Your task to perform on an android device: turn on improve location accuracy Image 0: 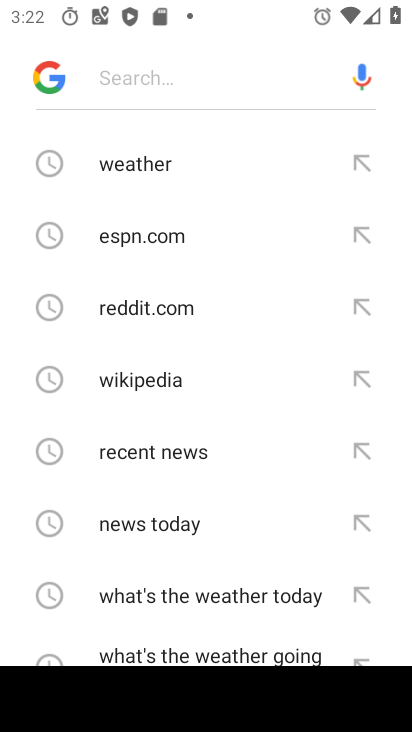
Step 0: press home button
Your task to perform on an android device: turn on improve location accuracy Image 1: 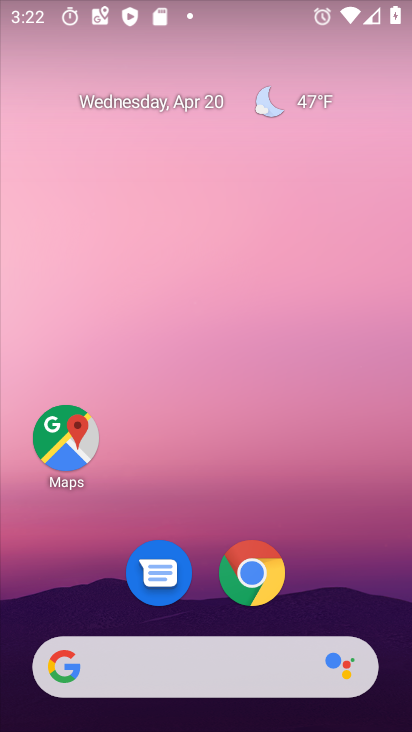
Step 1: drag from (202, 724) to (187, 47)
Your task to perform on an android device: turn on improve location accuracy Image 2: 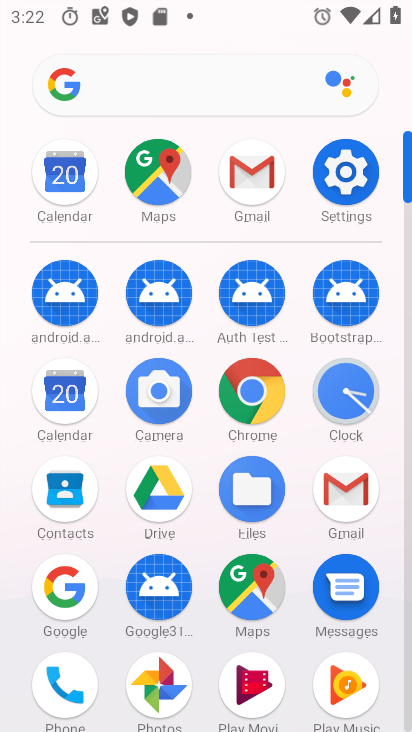
Step 2: click (350, 170)
Your task to perform on an android device: turn on improve location accuracy Image 3: 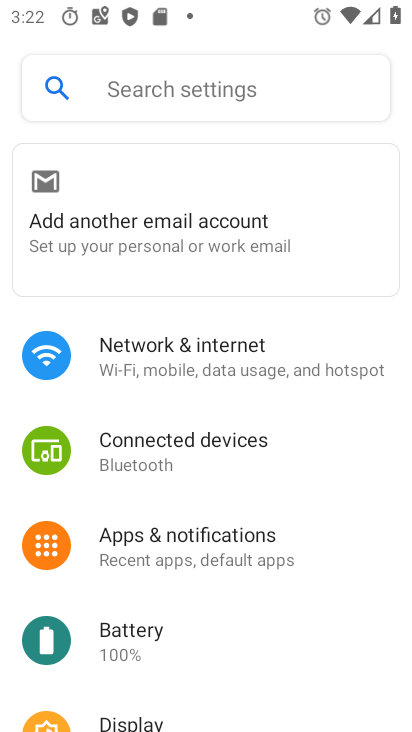
Step 3: drag from (214, 647) to (219, 162)
Your task to perform on an android device: turn on improve location accuracy Image 4: 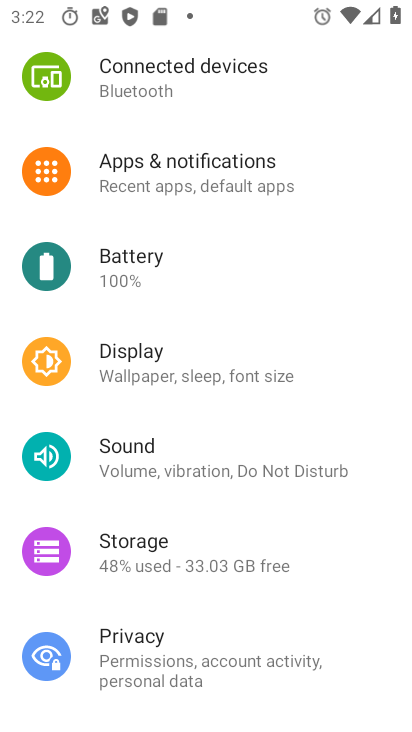
Step 4: drag from (217, 627) to (207, 214)
Your task to perform on an android device: turn on improve location accuracy Image 5: 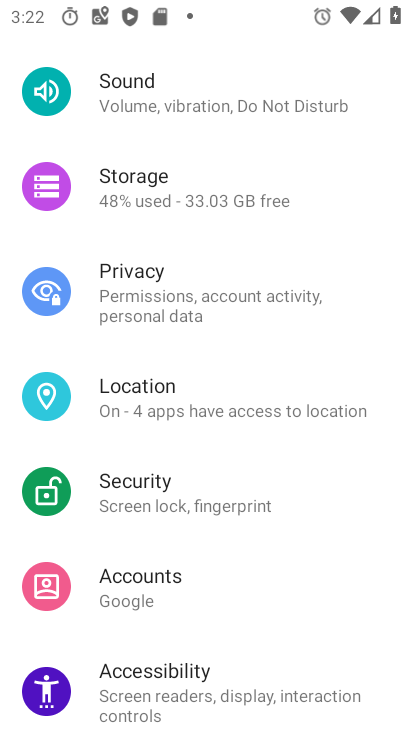
Step 5: click (126, 397)
Your task to perform on an android device: turn on improve location accuracy Image 6: 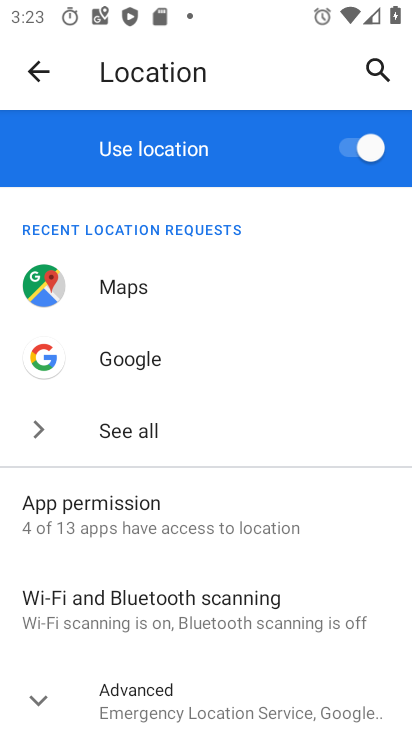
Step 6: drag from (212, 667) to (235, 439)
Your task to perform on an android device: turn on improve location accuracy Image 7: 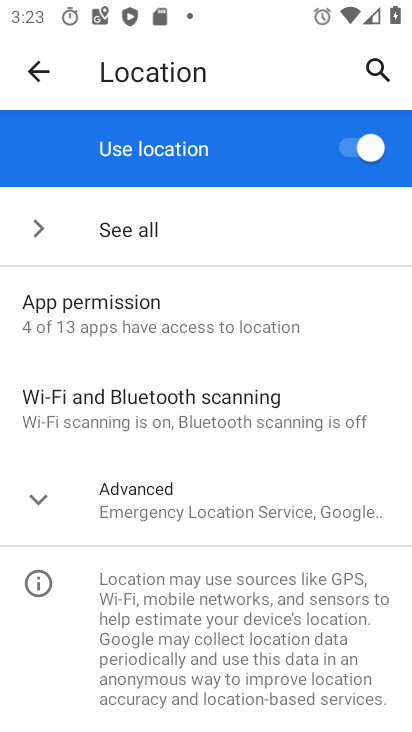
Step 7: click (149, 507)
Your task to perform on an android device: turn on improve location accuracy Image 8: 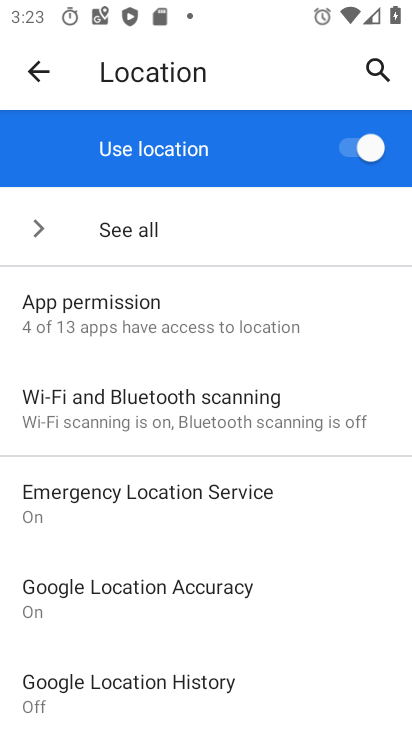
Step 8: drag from (156, 648) to (188, 383)
Your task to perform on an android device: turn on improve location accuracy Image 9: 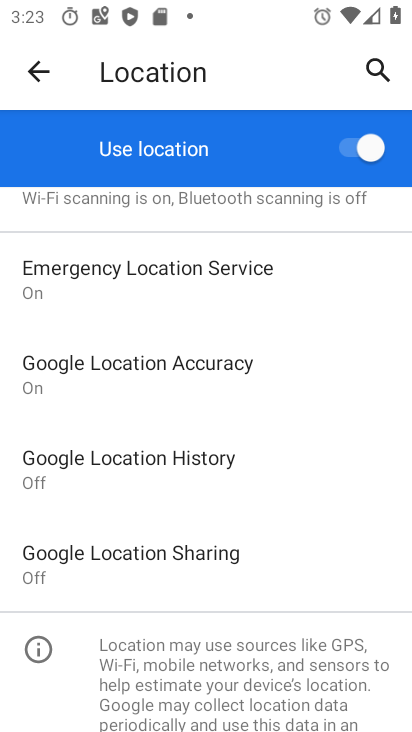
Step 9: click (141, 362)
Your task to perform on an android device: turn on improve location accuracy Image 10: 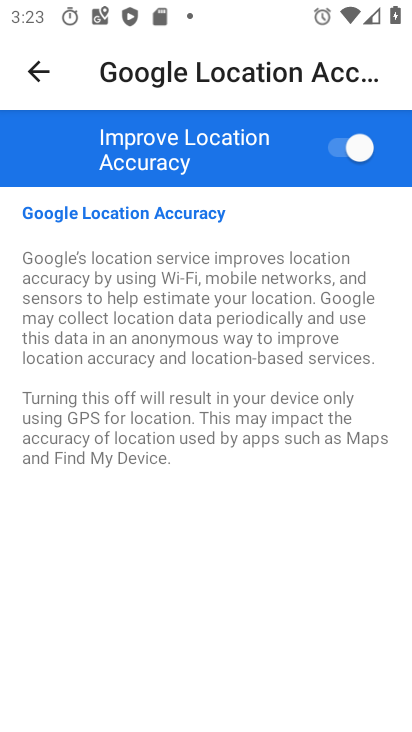
Step 10: task complete